Your task to perform on an android device: check storage Image 0: 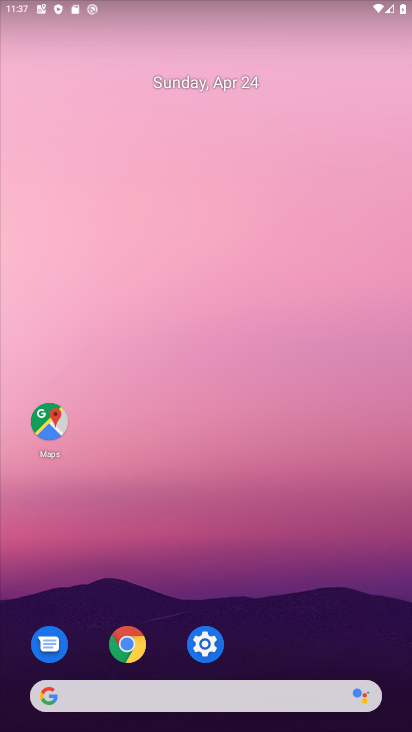
Step 0: drag from (259, 335) to (208, 83)
Your task to perform on an android device: check storage Image 1: 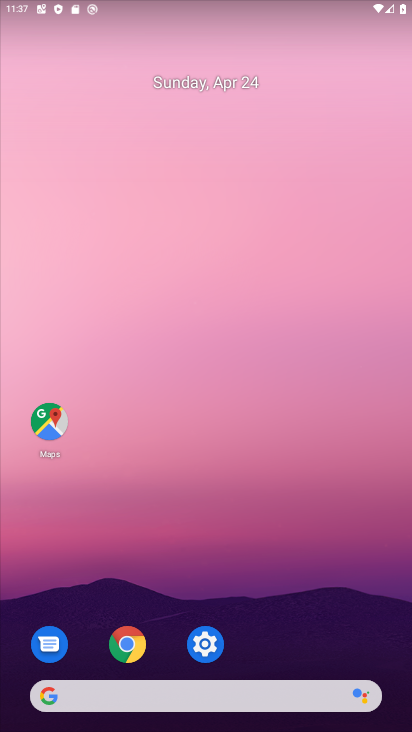
Step 1: drag from (251, 574) to (100, 98)
Your task to perform on an android device: check storage Image 2: 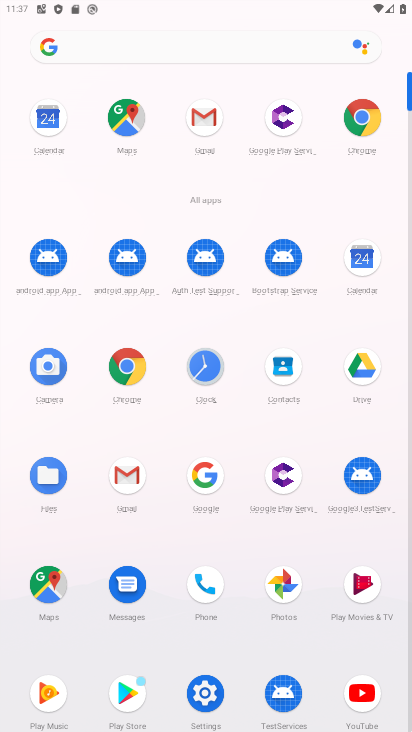
Step 2: click (204, 694)
Your task to perform on an android device: check storage Image 3: 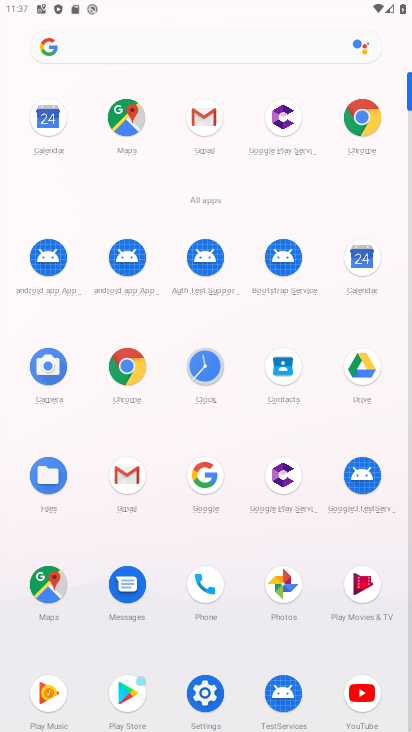
Step 3: click (204, 695)
Your task to perform on an android device: check storage Image 4: 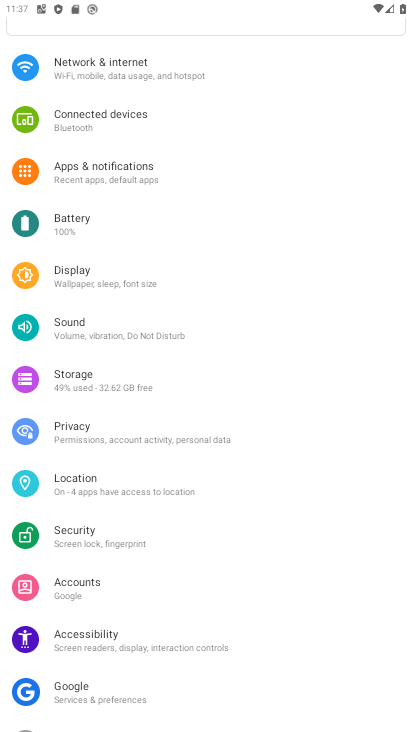
Step 4: click (58, 371)
Your task to perform on an android device: check storage Image 5: 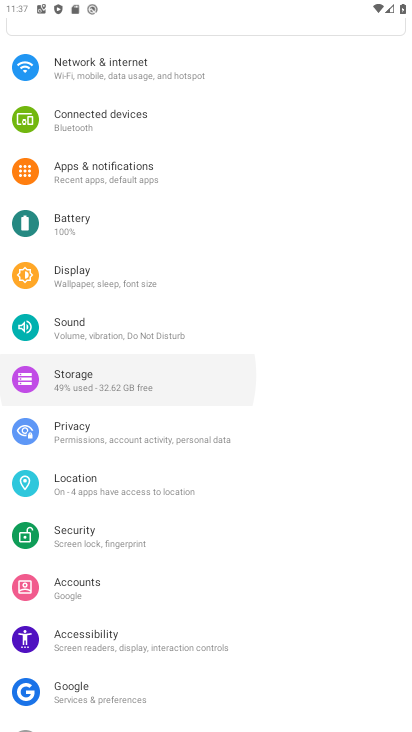
Step 5: click (58, 372)
Your task to perform on an android device: check storage Image 6: 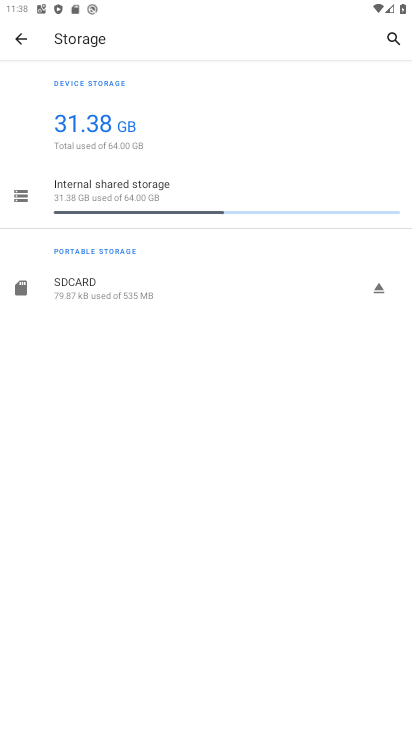
Step 6: task complete